Your task to perform on an android device: delete browsing data in the chrome app Image 0: 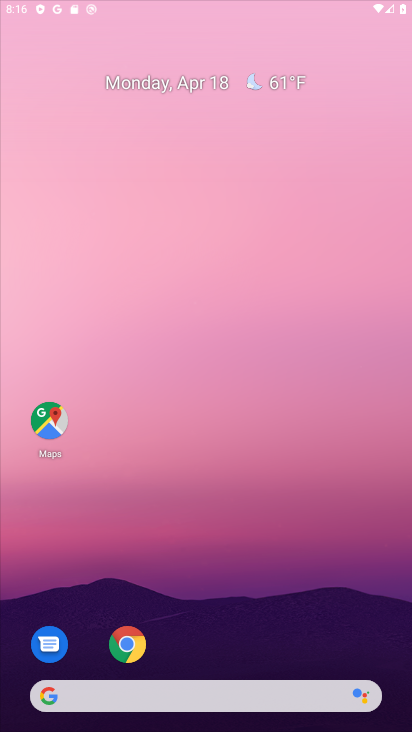
Step 0: click (172, 207)
Your task to perform on an android device: delete browsing data in the chrome app Image 1: 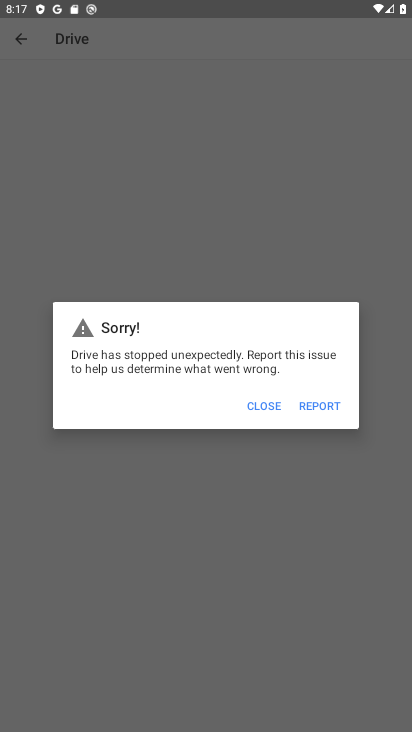
Step 1: press home button
Your task to perform on an android device: delete browsing data in the chrome app Image 2: 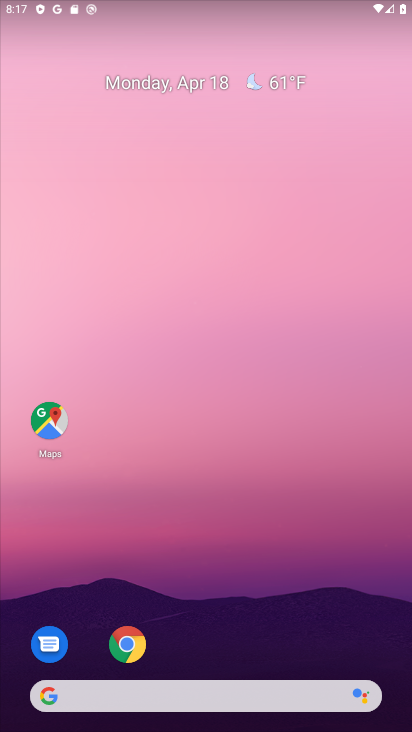
Step 2: click (131, 638)
Your task to perform on an android device: delete browsing data in the chrome app Image 3: 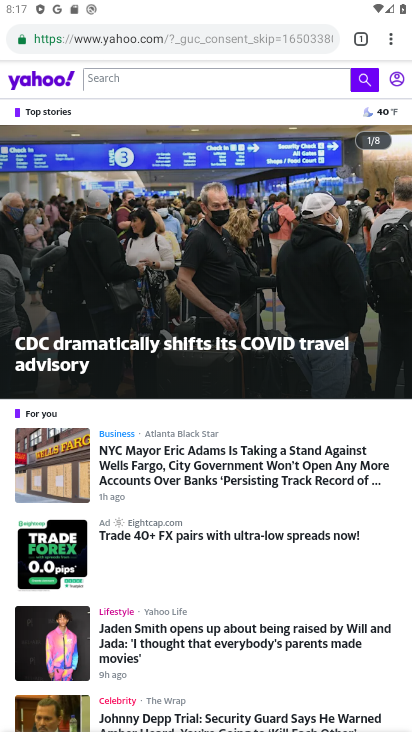
Step 3: click (395, 41)
Your task to perform on an android device: delete browsing data in the chrome app Image 4: 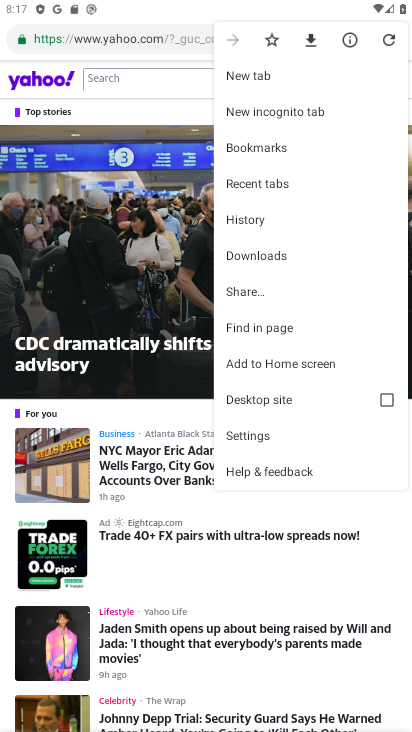
Step 4: click (264, 437)
Your task to perform on an android device: delete browsing data in the chrome app Image 5: 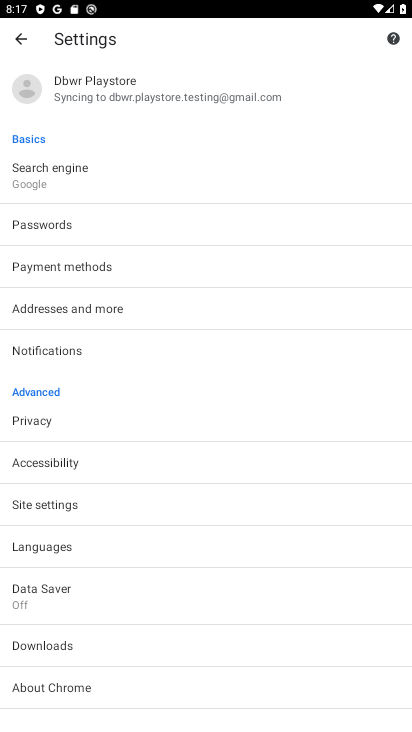
Step 5: click (98, 431)
Your task to perform on an android device: delete browsing data in the chrome app Image 6: 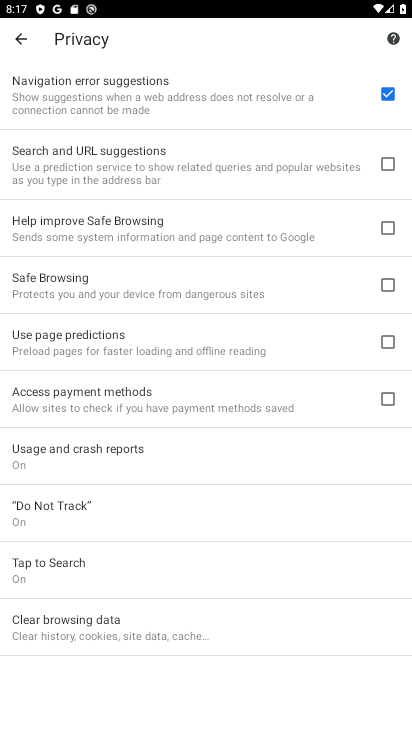
Step 6: click (96, 623)
Your task to perform on an android device: delete browsing data in the chrome app Image 7: 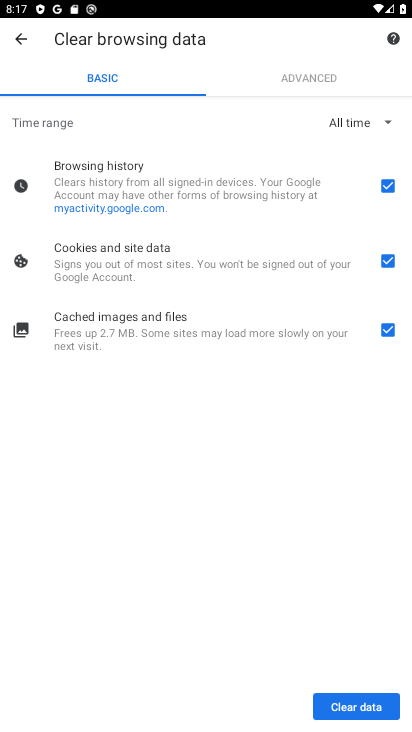
Step 7: click (336, 708)
Your task to perform on an android device: delete browsing data in the chrome app Image 8: 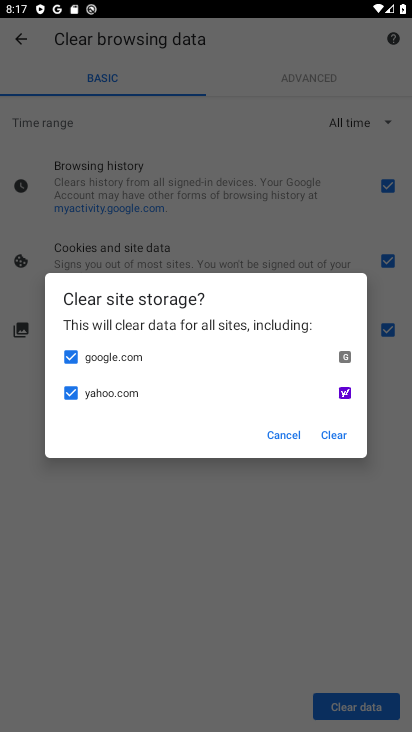
Step 8: click (321, 430)
Your task to perform on an android device: delete browsing data in the chrome app Image 9: 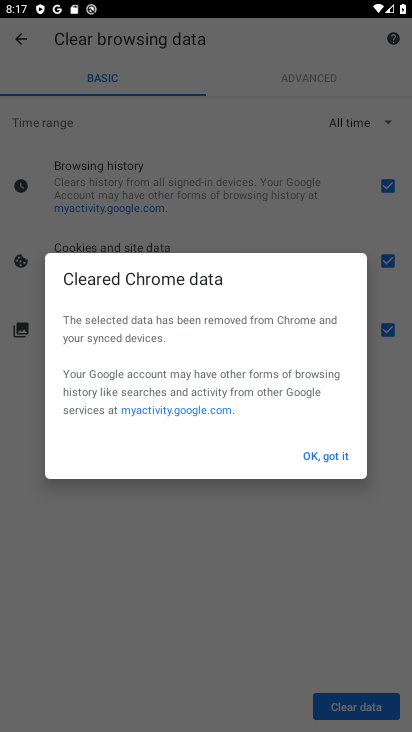
Step 9: click (313, 451)
Your task to perform on an android device: delete browsing data in the chrome app Image 10: 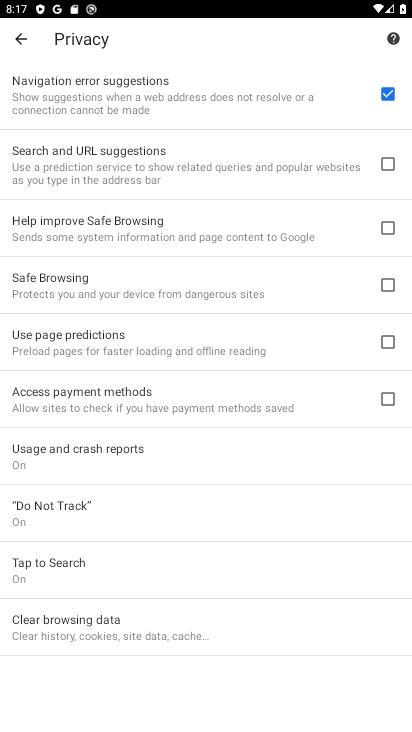
Step 10: task complete